Your task to perform on an android device: Open the phone app and click the voicemail tab. Image 0: 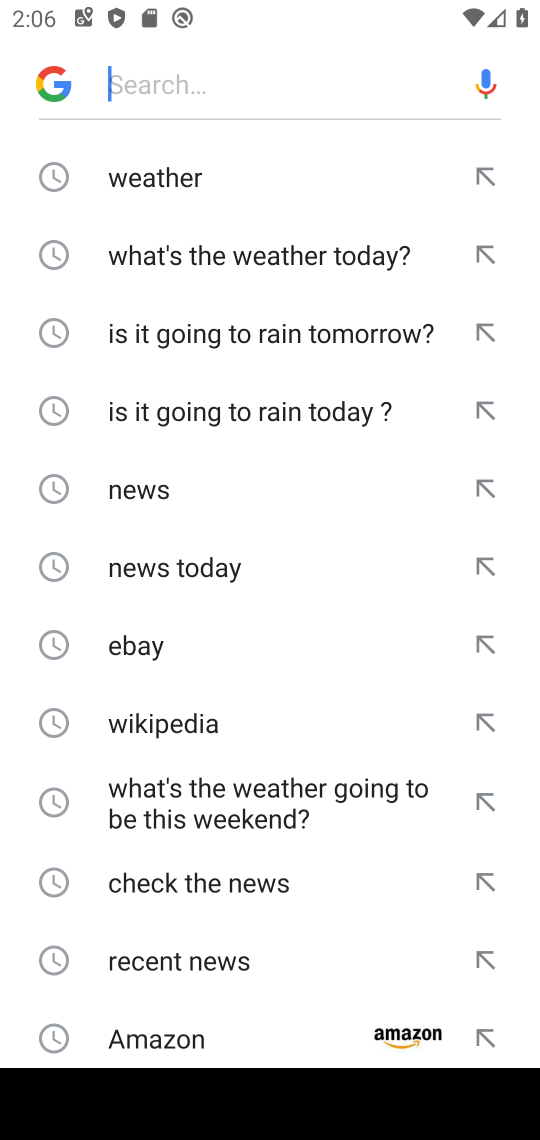
Step 0: press back button
Your task to perform on an android device: Open the phone app and click the voicemail tab. Image 1: 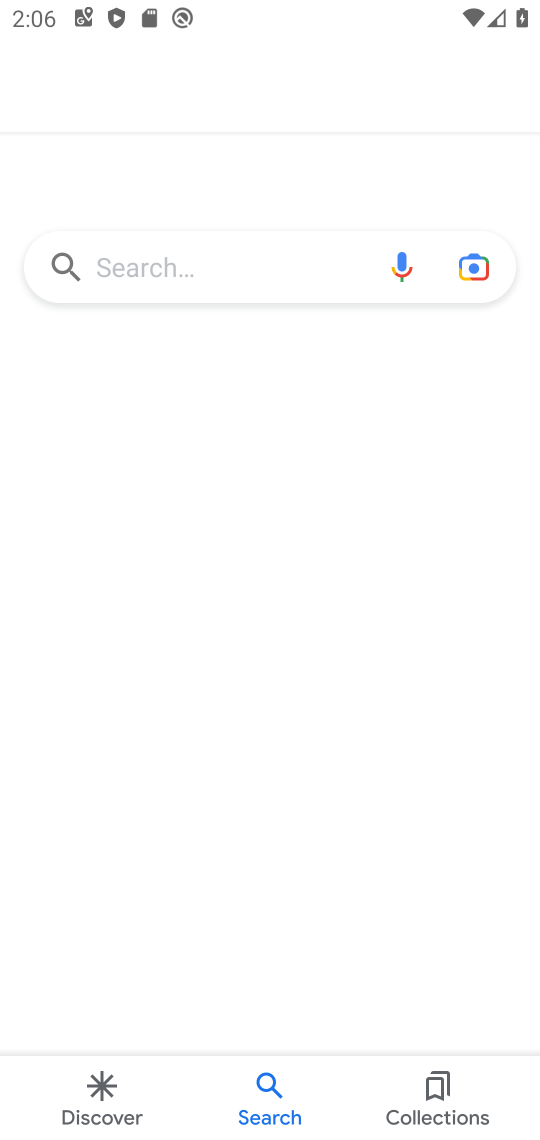
Step 1: press back button
Your task to perform on an android device: Open the phone app and click the voicemail tab. Image 2: 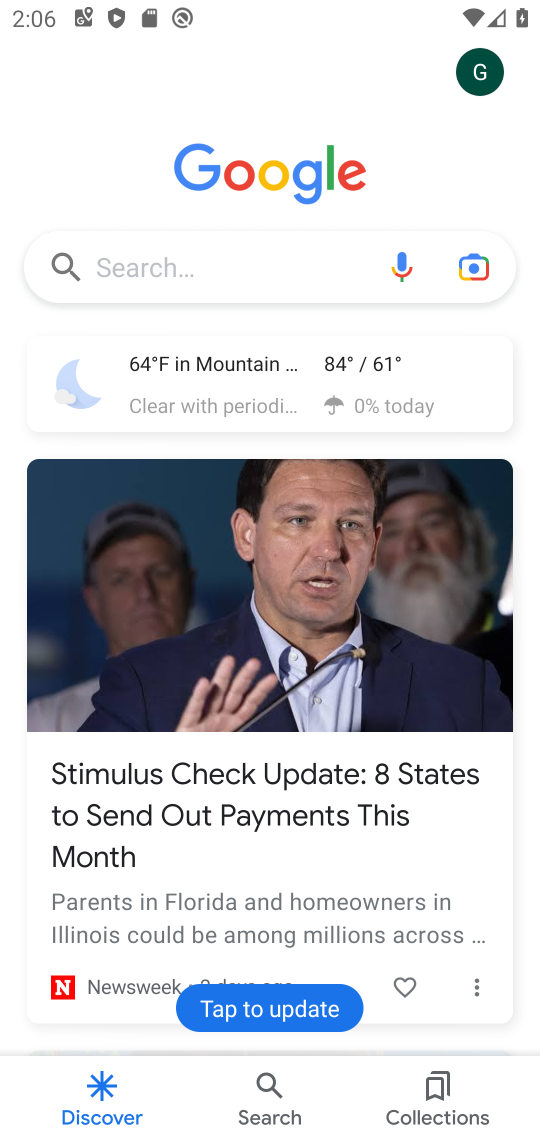
Step 2: press back button
Your task to perform on an android device: Open the phone app and click the voicemail tab. Image 3: 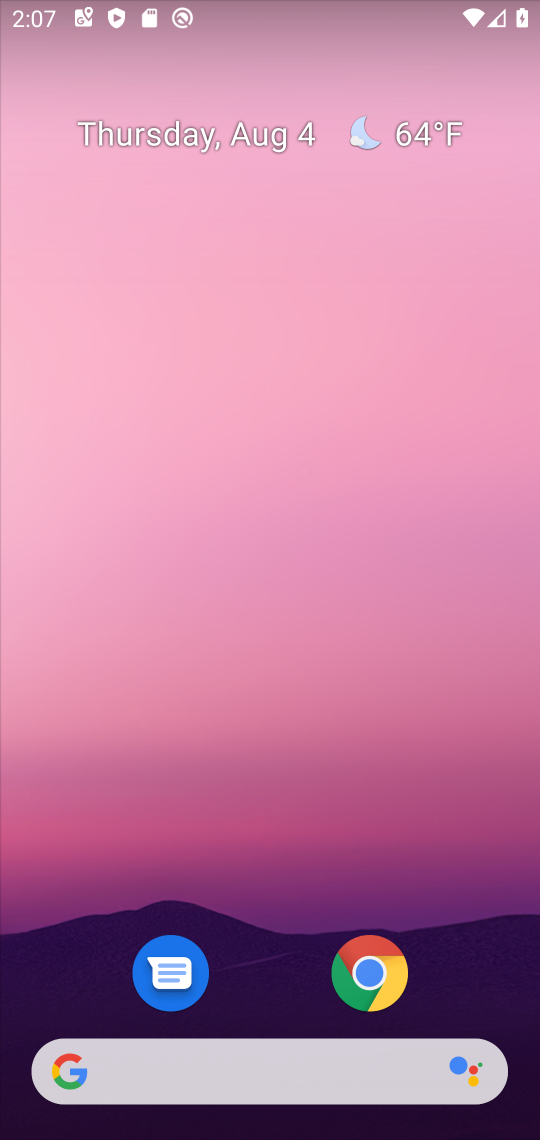
Step 3: drag from (272, 1015) to (355, 9)
Your task to perform on an android device: Open the phone app and click the voicemail tab. Image 4: 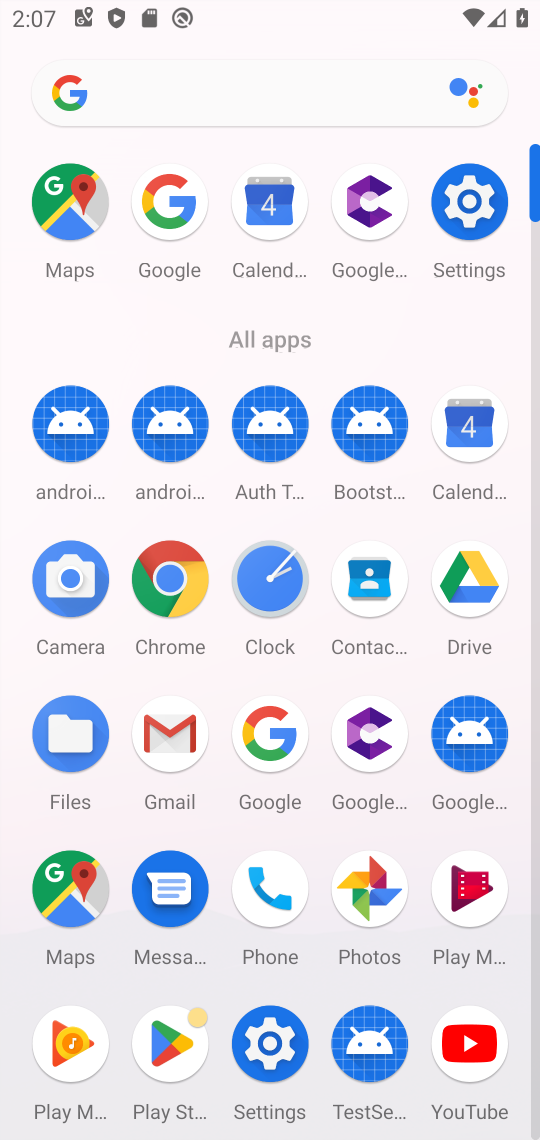
Step 4: click (259, 890)
Your task to perform on an android device: Open the phone app and click the voicemail tab. Image 5: 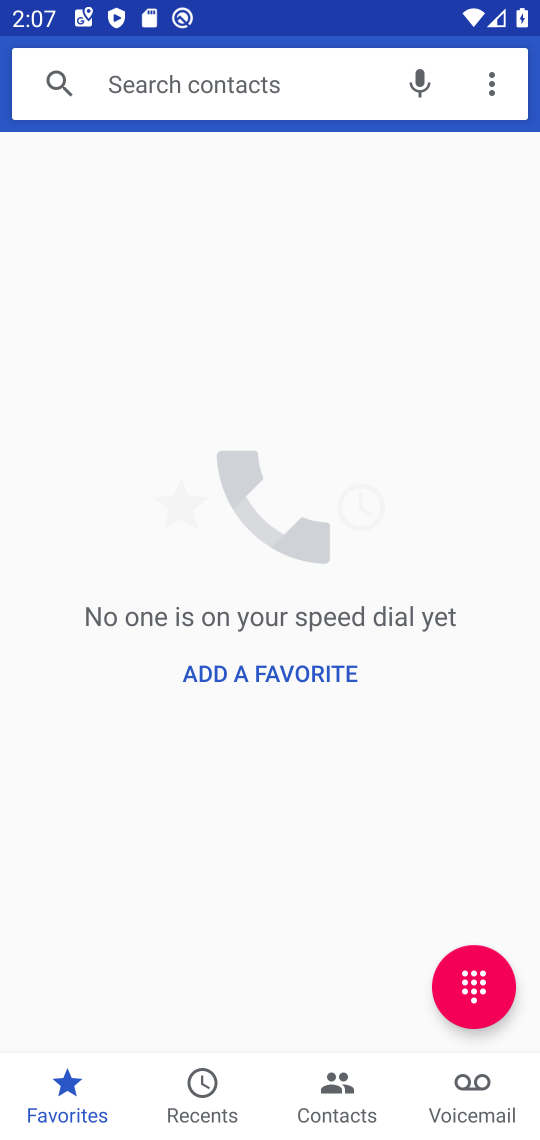
Step 5: click (350, 1117)
Your task to perform on an android device: Open the phone app and click the voicemail tab. Image 6: 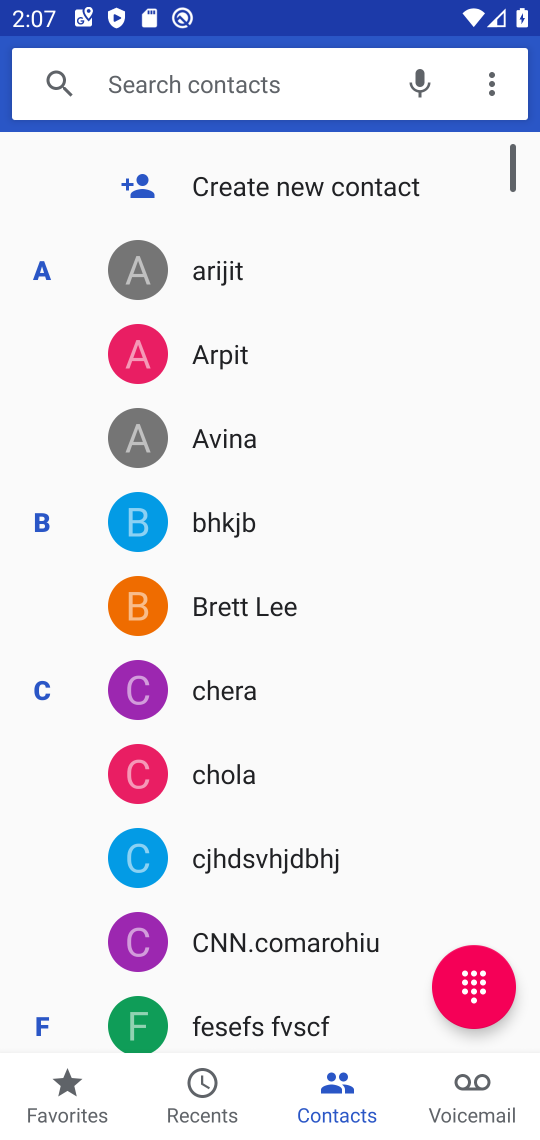
Step 6: click (437, 1081)
Your task to perform on an android device: Open the phone app and click the voicemail tab. Image 7: 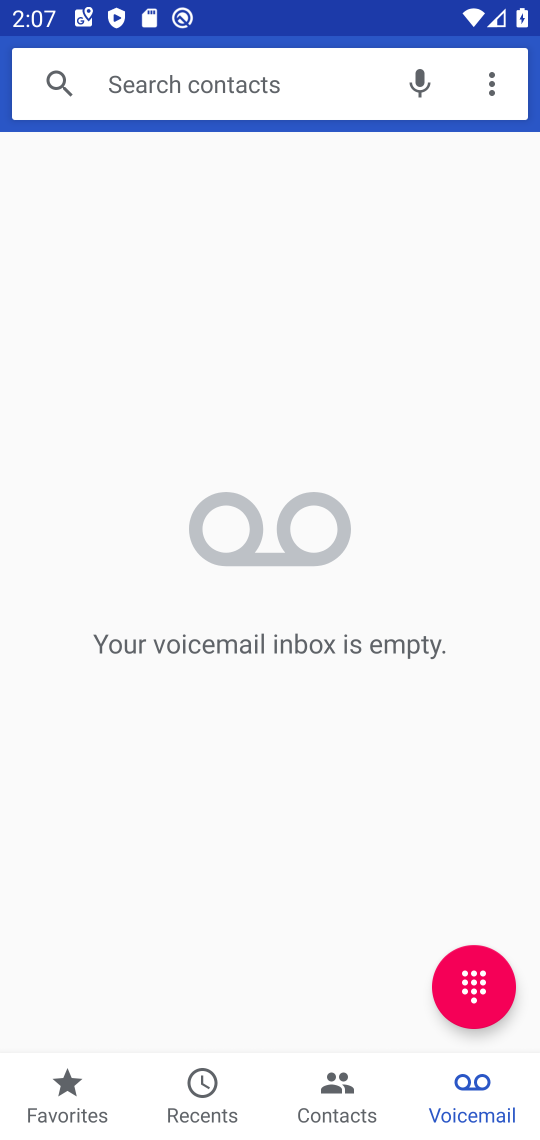
Step 7: task complete